Your task to perform on an android device: turn off javascript in the chrome app Image 0: 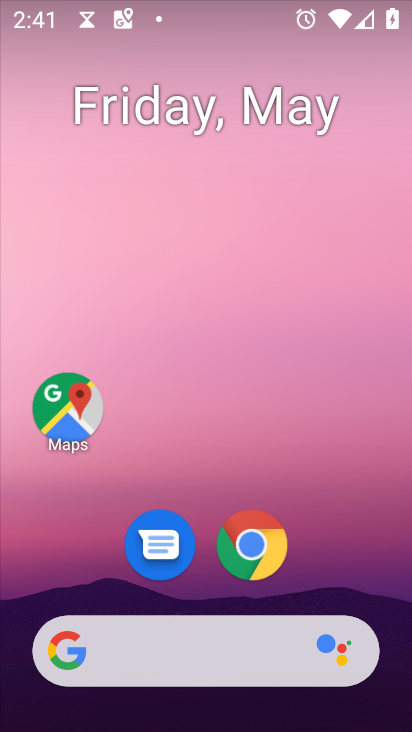
Step 0: click (260, 541)
Your task to perform on an android device: turn off javascript in the chrome app Image 1: 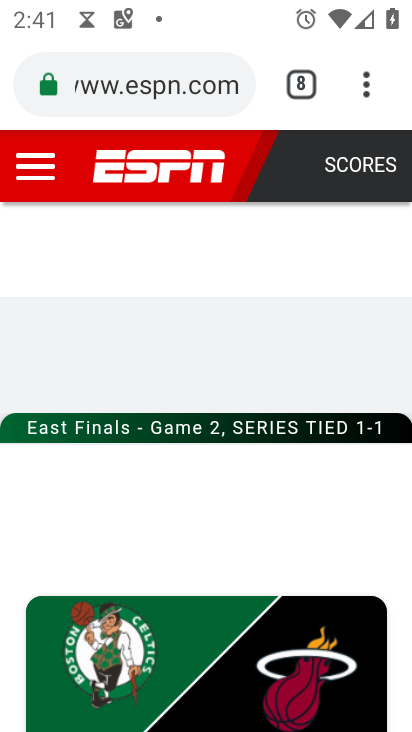
Step 1: click (380, 84)
Your task to perform on an android device: turn off javascript in the chrome app Image 2: 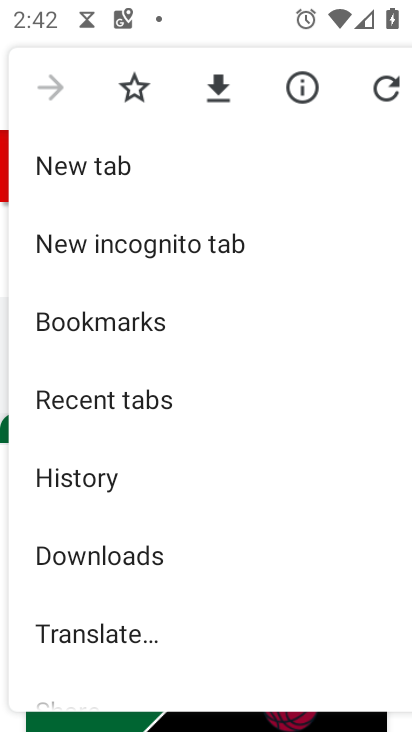
Step 2: drag from (196, 615) to (221, 285)
Your task to perform on an android device: turn off javascript in the chrome app Image 3: 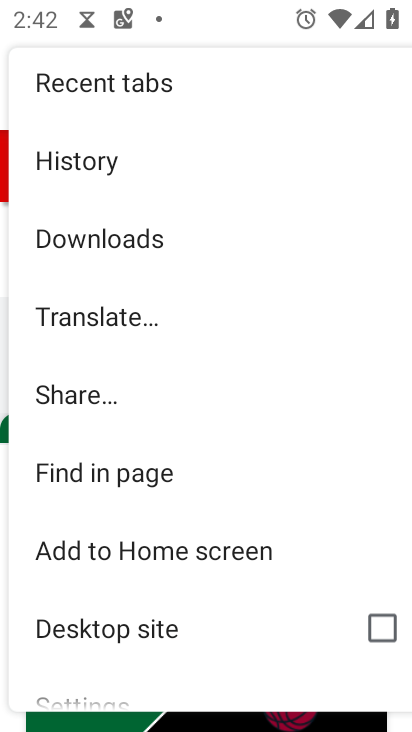
Step 3: drag from (197, 620) to (212, 379)
Your task to perform on an android device: turn off javascript in the chrome app Image 4: 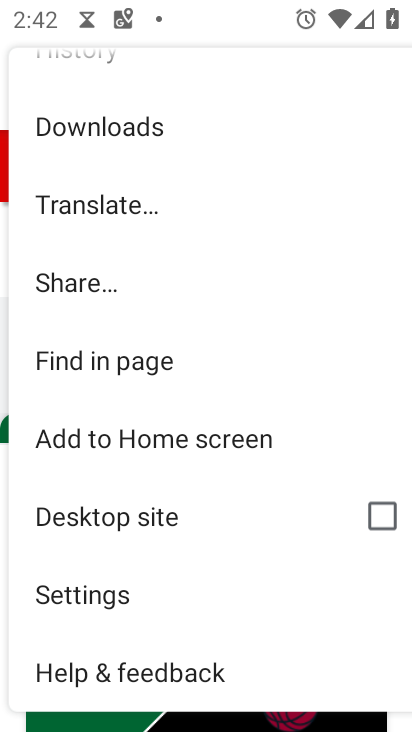
Step 4: click (110, 595)
Your task to perform on an android device: turn off javascript in the chrome app Image 5: 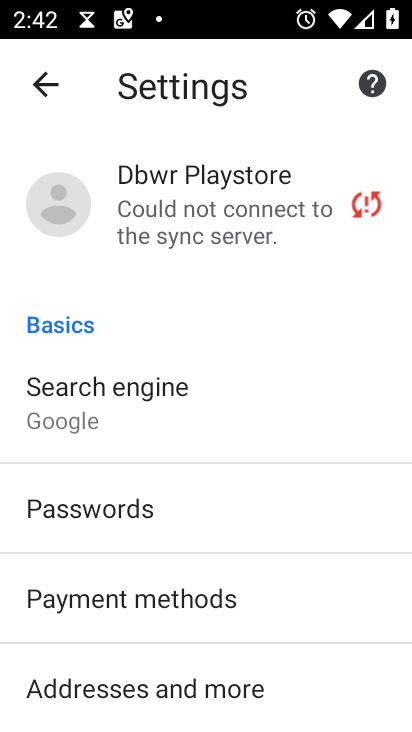
Step 5: drag from (296, 642) to (301, 270)
Your task to perform on an android device: turn off javascript in the chrome app Image 6: 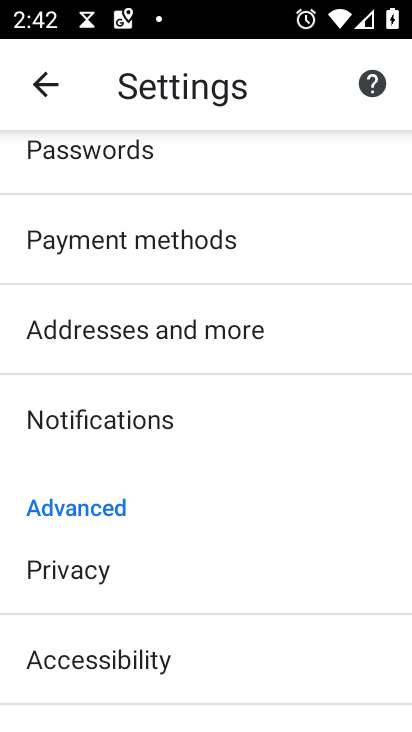
Step 6: drag from (265, 611) to (239, 295)
Your task to perform on an android device: turn off javascript in the chrome app Image 7: 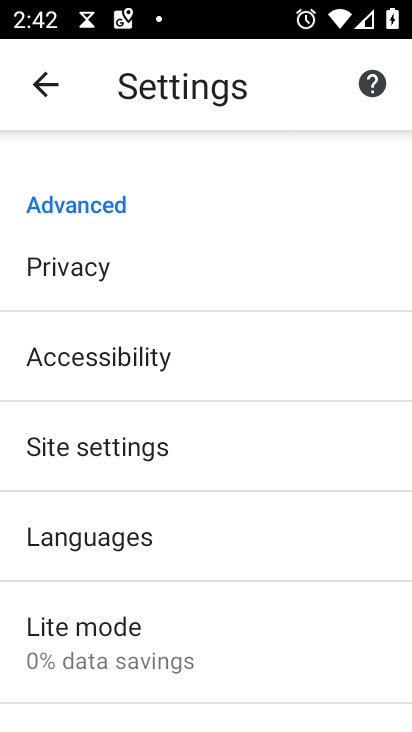
Step 7: click (136, 461)
Your task to perform on an android device: turn off javascript in the chrome app Image 8: 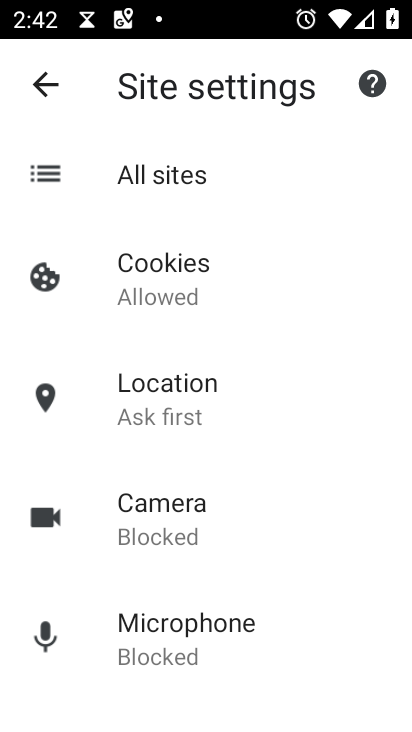
Step 8: drag from (321, 630) to (303, 262)
Your task to perform on an android device: turn off javascript in the chrome app Image 9: 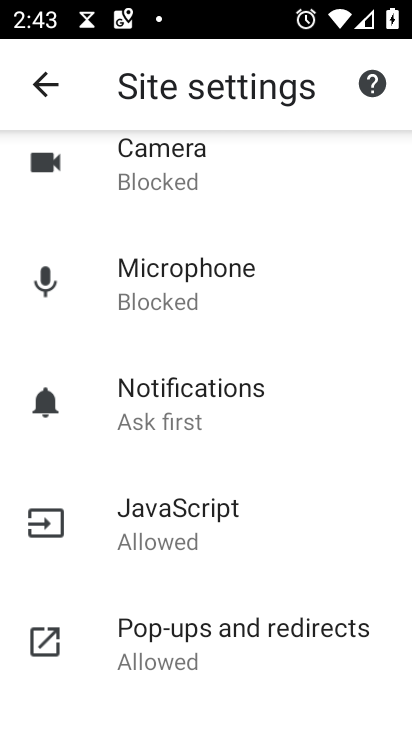
Step 9: click (204, 517)
Your task to perform on an android device: turn off javascript in the chrome app Image 10: 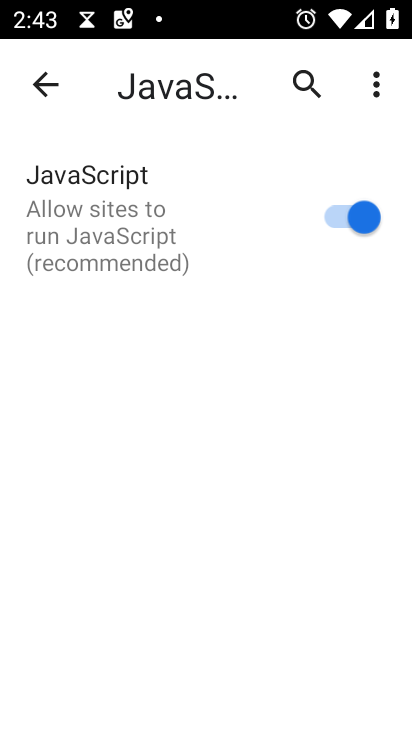
Step 10: click (337, 210)
Your task to perform on an android device: turn off javascript in the chrome app Image 11: 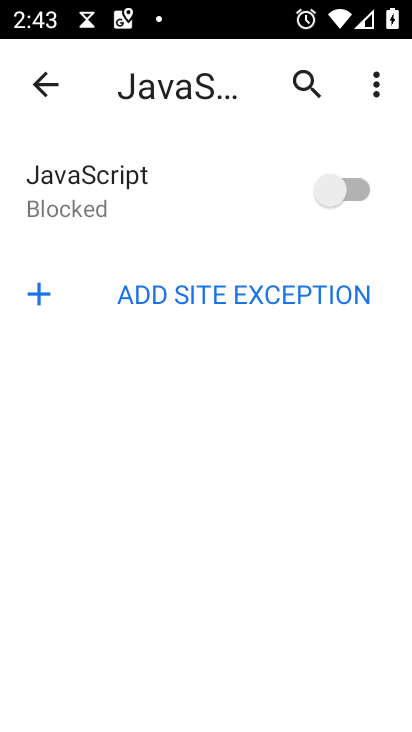
Step 11: task complete